Your task to perform on an android device: check storage Image 0: 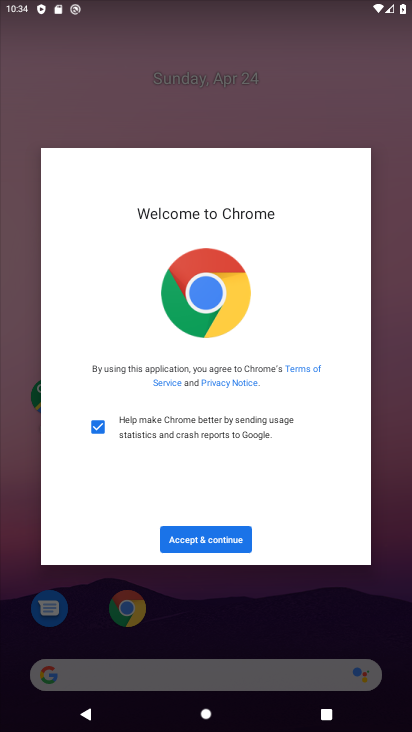
Step 0: click (208, 538)
Your task to perform on an android device: check storage Image 1: 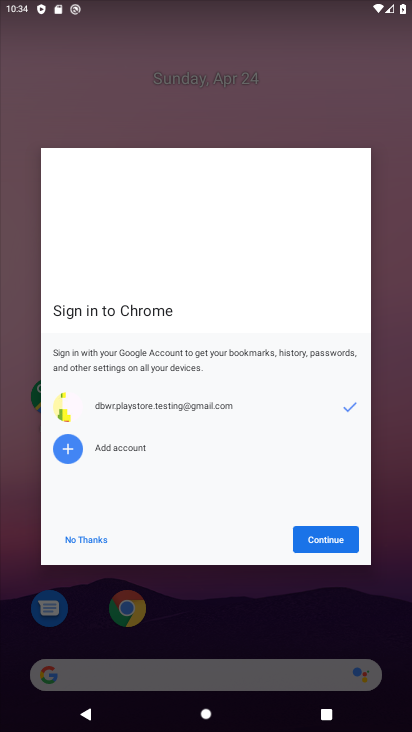
Step 1: press home button
Your task to perform on an android device: check storage Image 2: 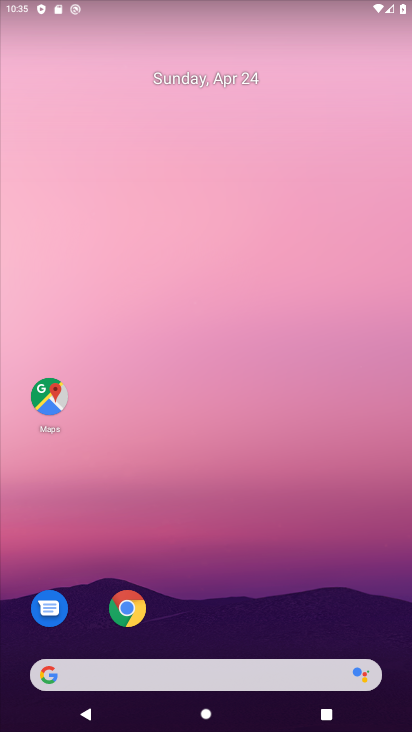
Step 2: drag from (359, 631) to (315, 130)
Your task to perform on an android device: check storage Image 3: 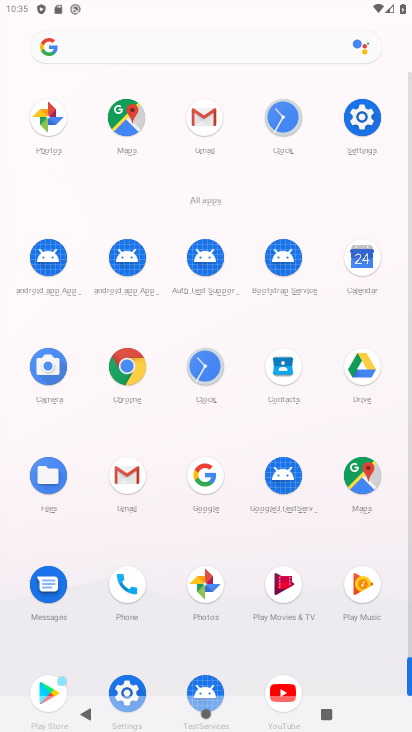
Step 3: click (127, 683)
Your task to perform on an android device: check storage Image 4: 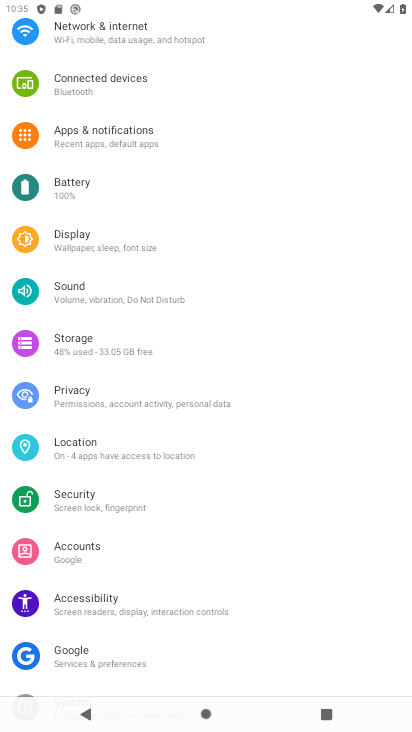
Step 4: task complete